Your task to perform on an android device: Go to Android settings Image 0: 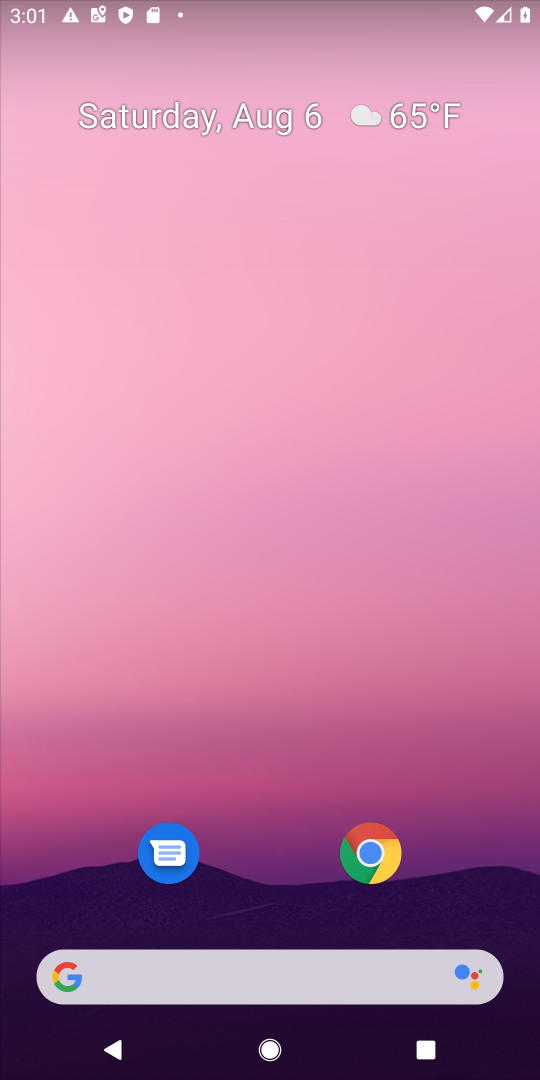
Step 0: drag from (253, 865) to (349, 179)
Your task to perform on an android device: Go to Android settings Image 1: 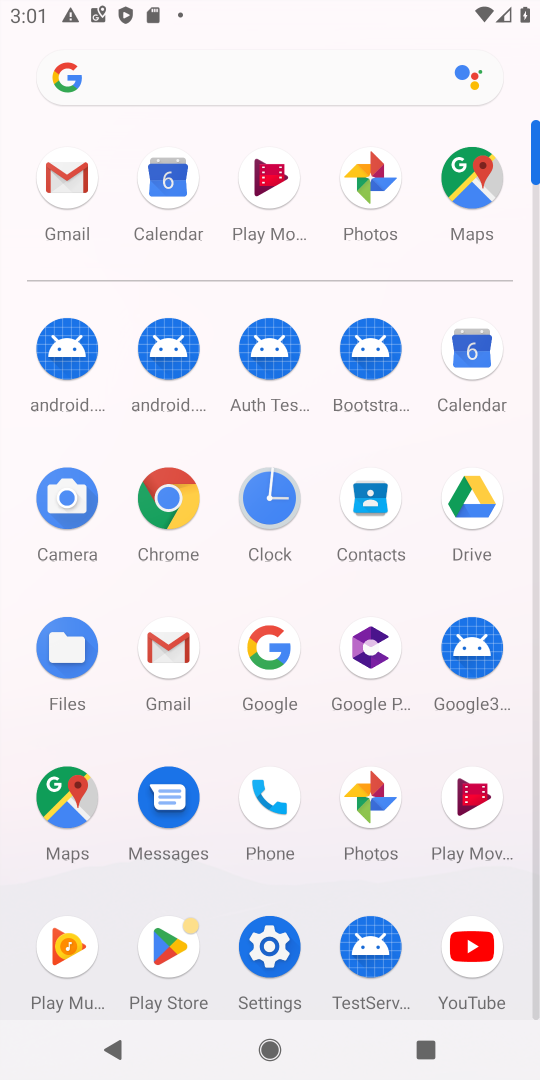
Step 1: click (254, 954)
Your task to perform on an android device: Go to Android settings Image 2: 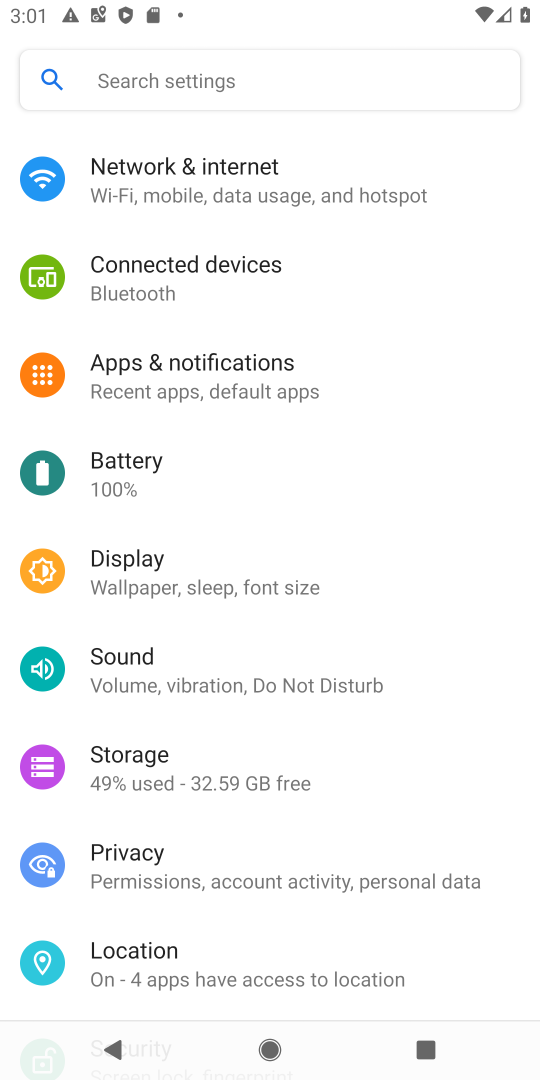
Step 2: drag from (311, 418) to (422, 39)
Your task to perform on an android device: Go to Android settings Image 3: 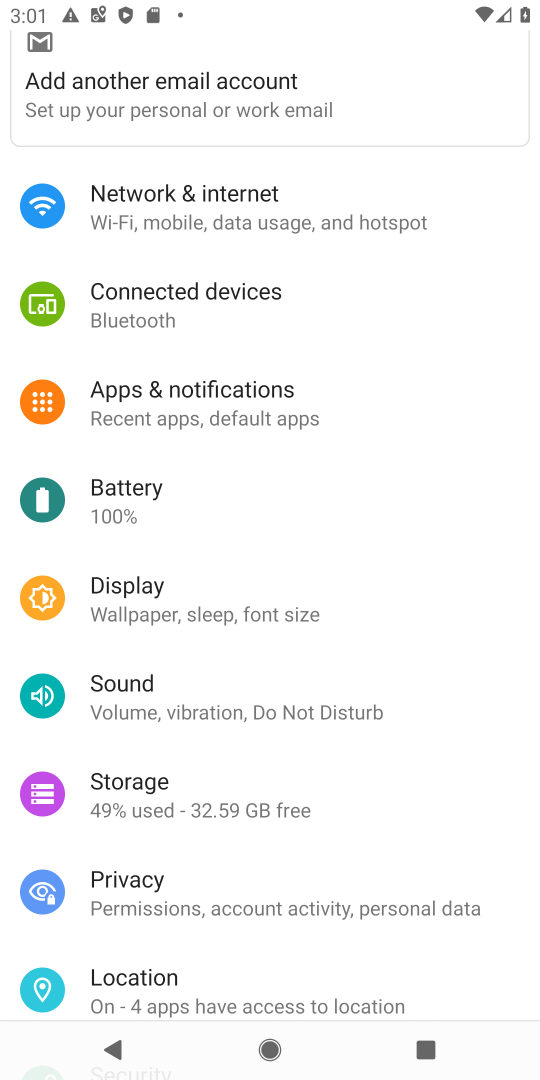
Step 3: drag from (247, 665) to (373, 28)
Your task to perform on an android device: Go to Android settings Image 4: 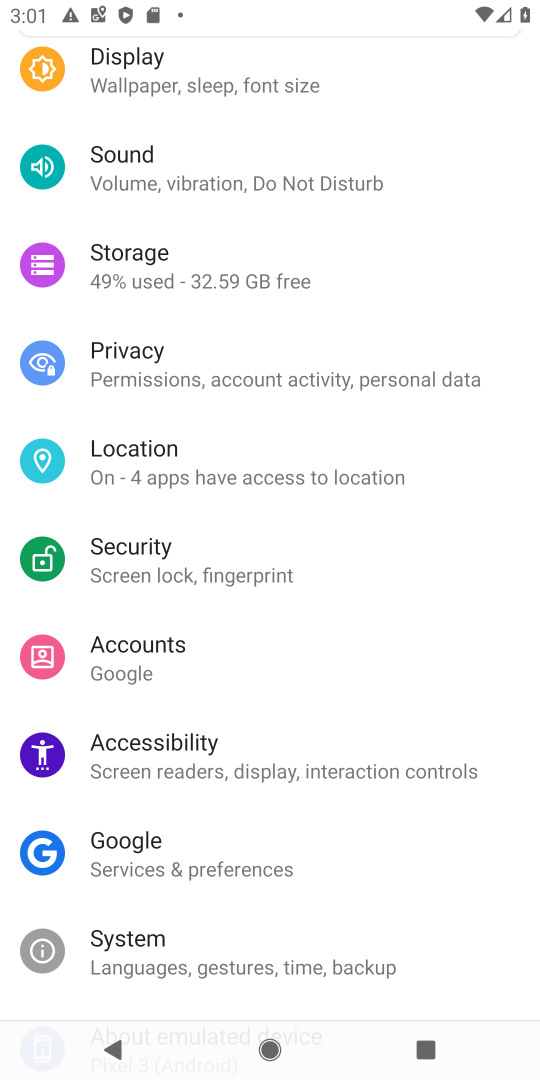
Step 4: drag from (184, 901) to (335, 80)
Your task to perform on an android device: Go to Android settings Image 5: 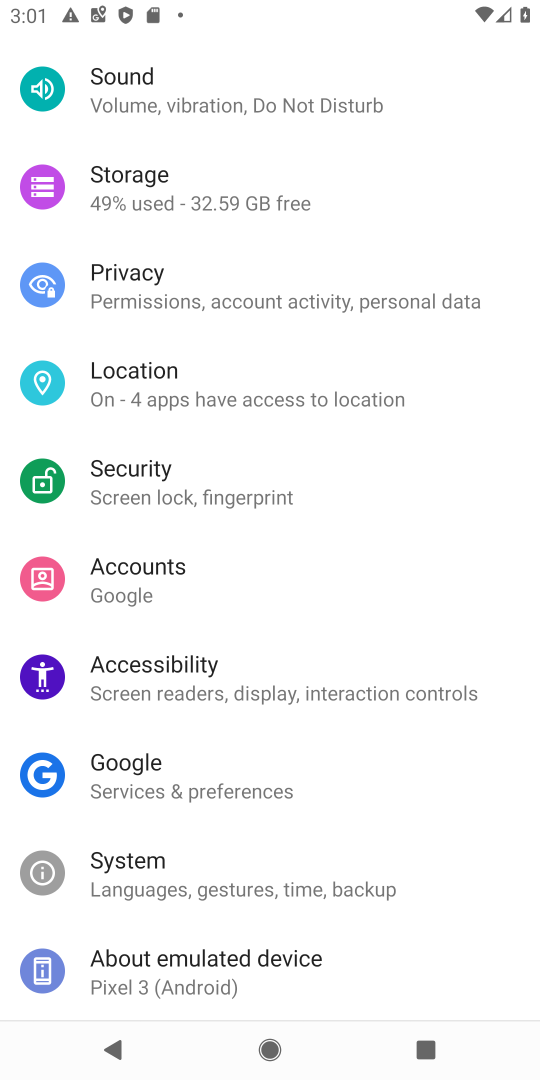
Step 5: click (187, 988)
Your task to perform on an android device: Go to Android settings Image 6: 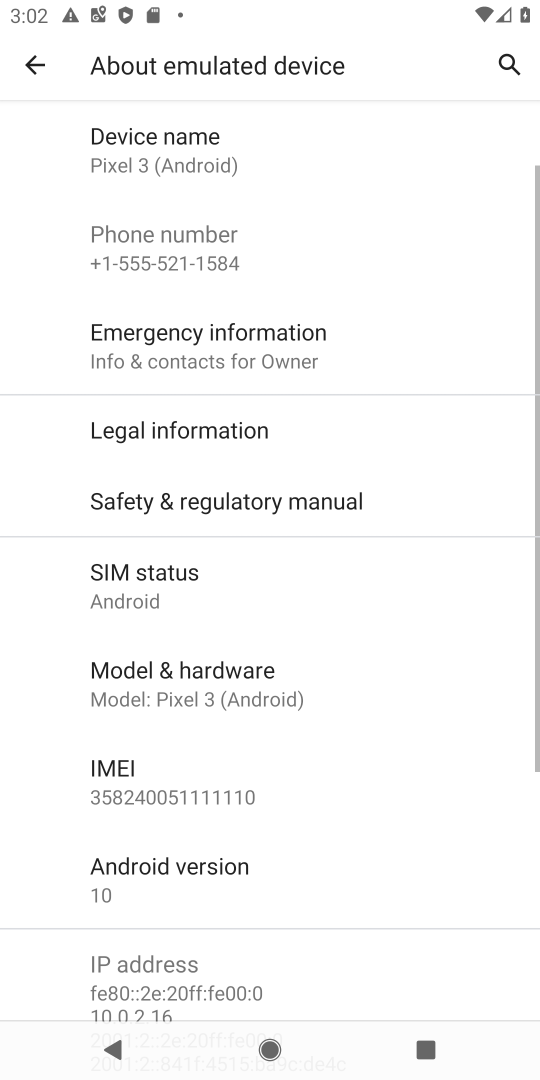
Step 6: task complete